Your task to perform on an android device: Open the stopwatch Image 0: 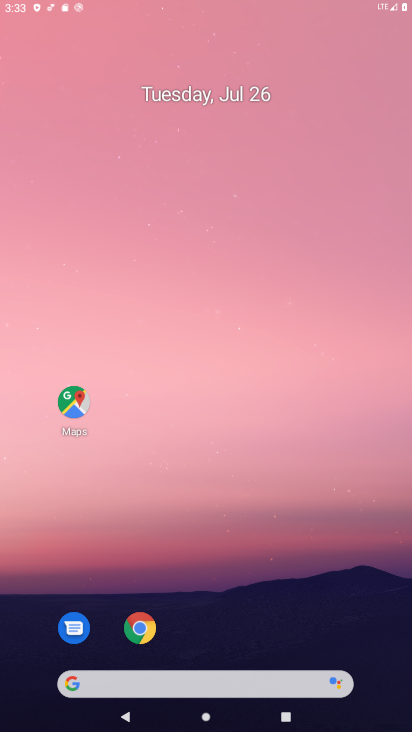
Step 0: press home button
Your task to perform on an android device: Open the stopwatch Image 1: 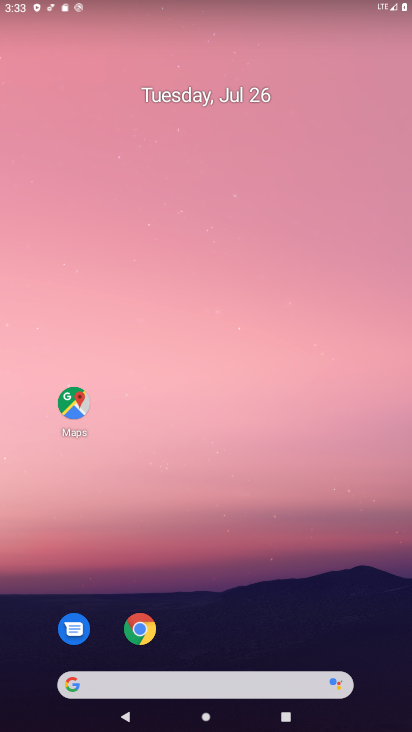
Step 1: drag from (228, 726) to (231, 342)
Your task to perform on an android device: Open the stopwatch Image 2: 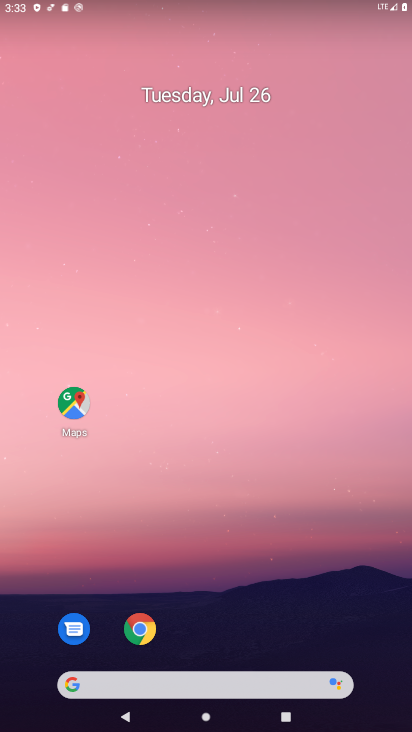
Step 2: drag from (234, 727) to (204, 220)
Your task to perform on an android device: Open the stopwatch Image 3: 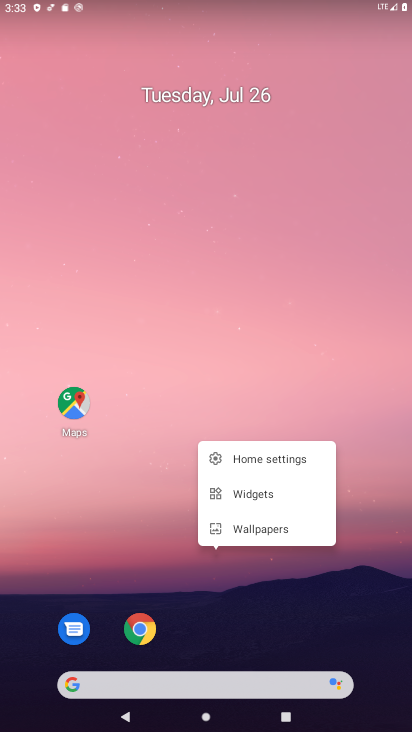
Step 3: click (204, 246)
Your task to perform on an android device: Open the stopwatch Image 4: 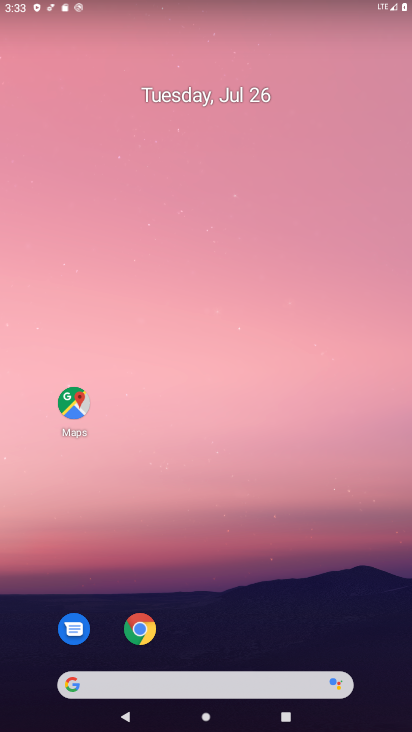
Step 4: drag from (231, 729) to (228, 155)
Your task to perform on an android device: Open the stopwatch Image 5: 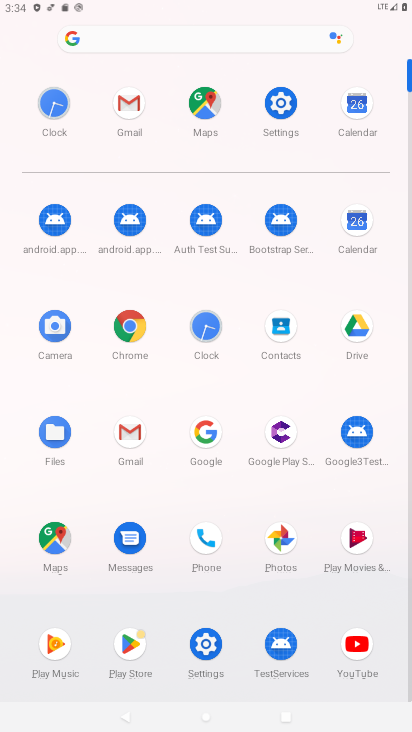
Step 5: click (210, 325)
Your task to perform on an android device: Open the stopwatch Image 6: 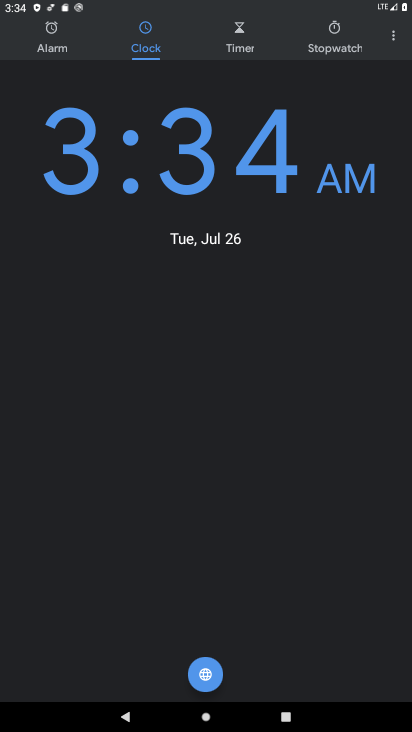
Step 6: click (340, 39)
Your task to perform on an android device: Open the stopwatch Image 7: 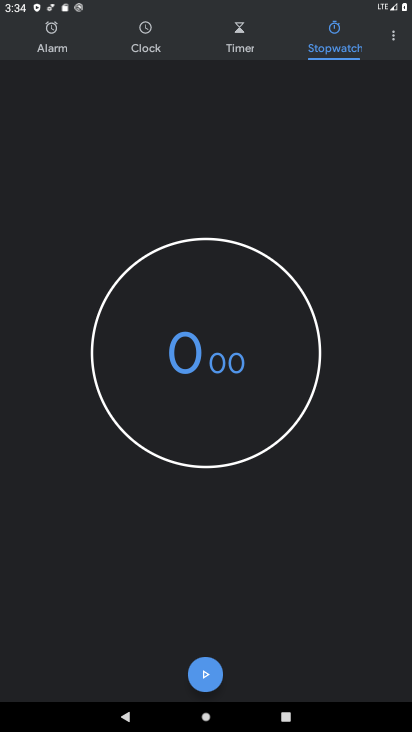
Step 7: task complete